Your task to perform on an android device: toggle show notifications on the lock screen Image 0: 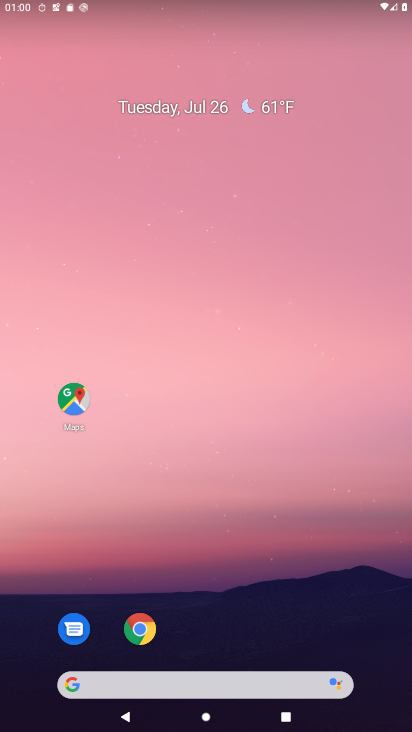
Step 0: drag from (206, 617) to (206, 181)
Your task to perform on an android device: toggle show notifications on the lock screen Image 1: 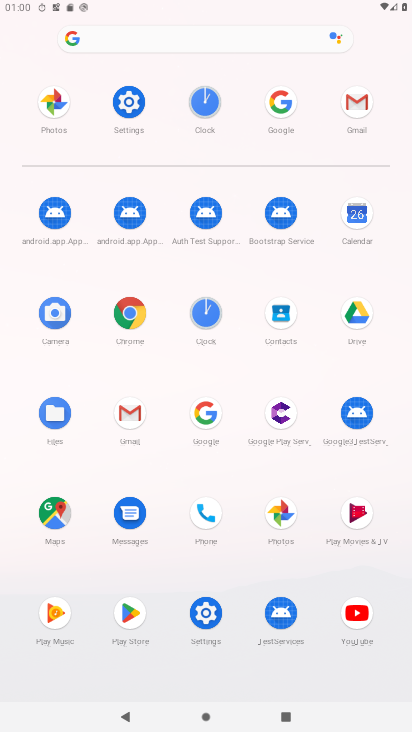
Step 1: click (113, 107)
Your task to perform on an android device: toggle show notifications on the lock screen Image 2: 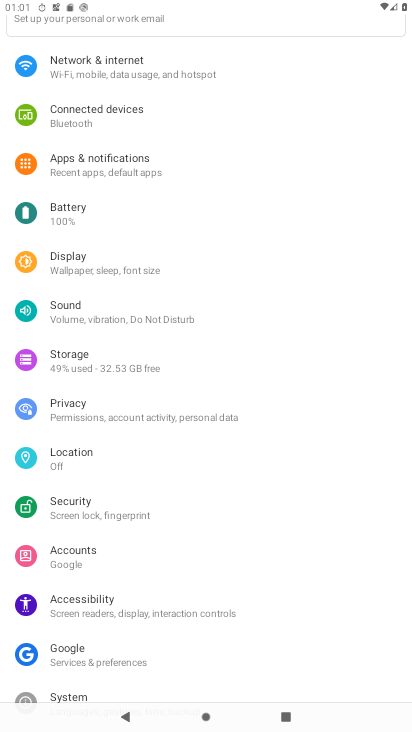
Step 2: click (115, 158)
Your task to perform on an android device: toggle show notifications on the lock screen Image 3: 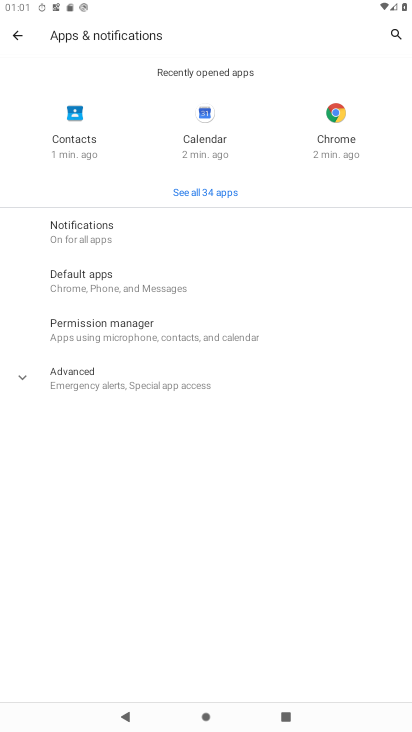
Step 3: click (130, 221)
Your task to perform on an android device: toggle show notifications on the lock screen Image 4: 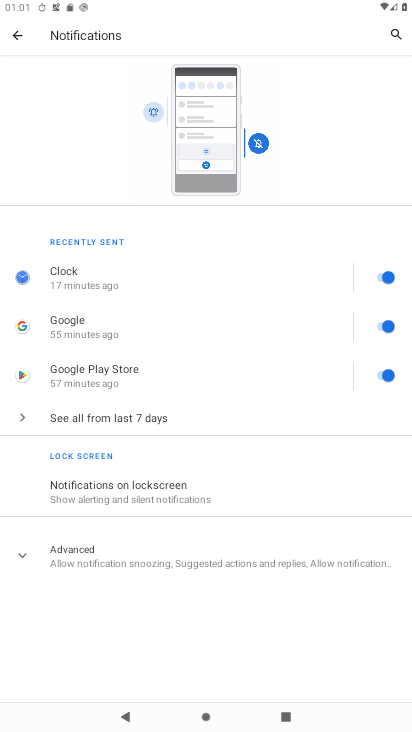
Step 4: click (178, 493)
Your task to perform on an android device: toggle show notifications on the lock screen Image 5: 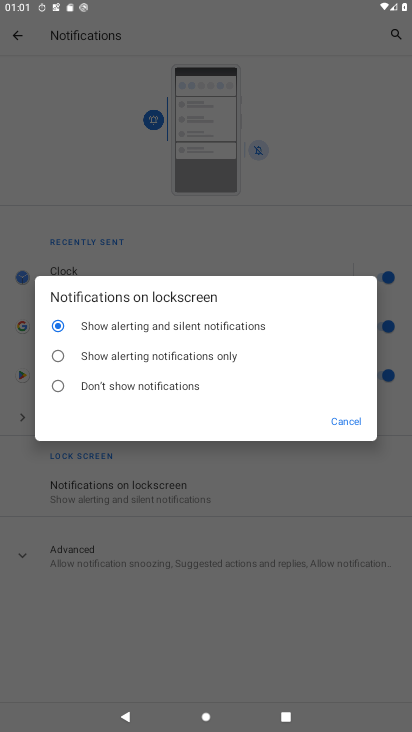
Step 5: click (144, 384)
Your task to perform on an android device: toggle show notifications on the lock screen Image 6: 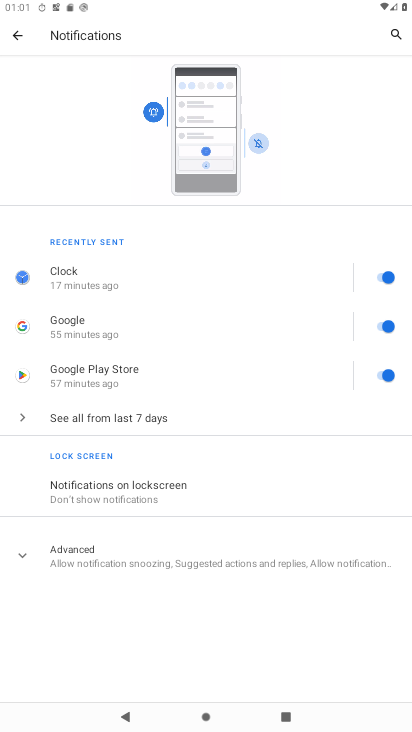
Step 6: click (203, 482)
Your task to perform on an android device: toggle show notifications on the lock screen Image 7: 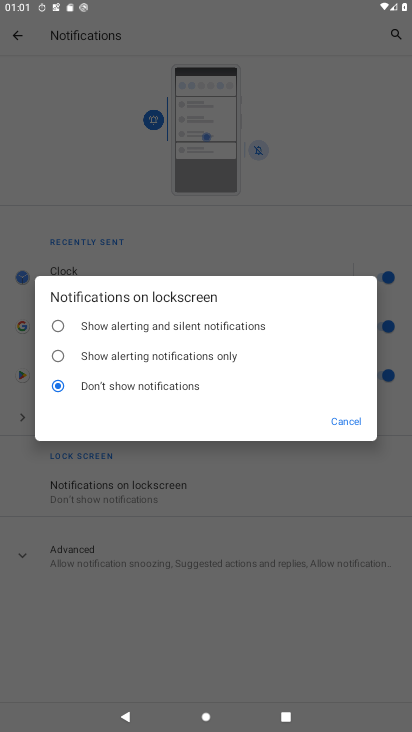
Step 7: click (116, 315)
Your task to perform on an android device: toggle show notifications on the lock screen Image 8: 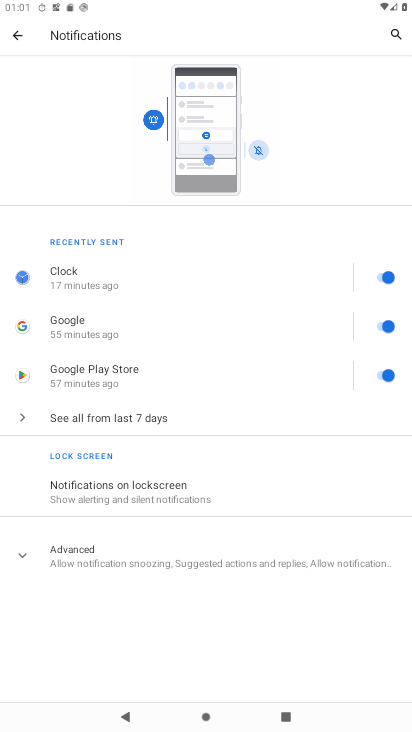
Step 8: task complete